Your task to perform on an android device: turn on javascript in the chrome app Image 0: 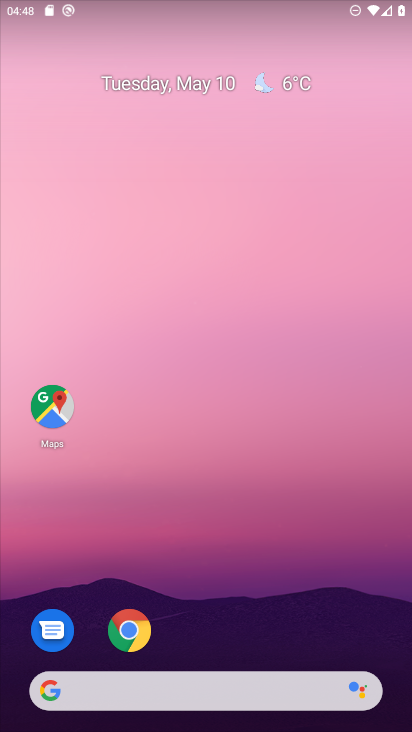
Step 0: click (130, 634)
Your task to perform on an android device: turn on javascript in the chrome app Image 1: 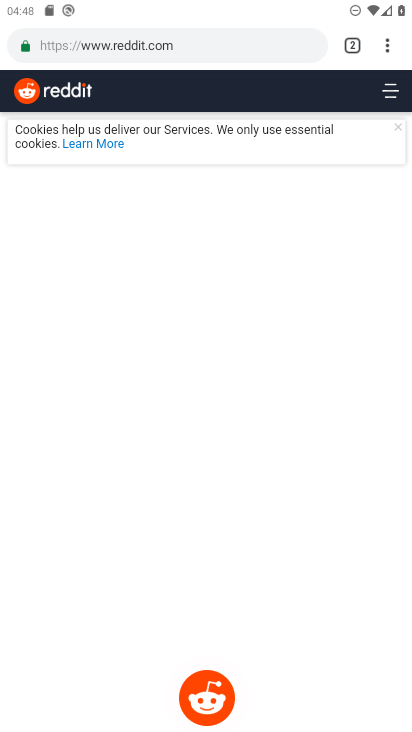
Step 1: click (379, 45)
Your task to perform on an android device: turn on javascript in the chrome app Image 2: 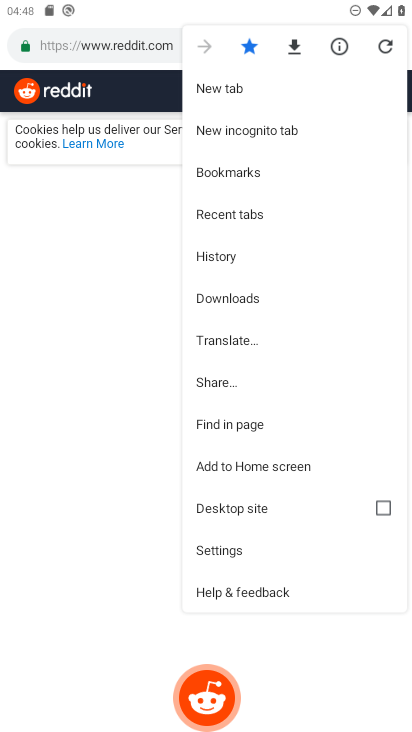
Step 2: click (236, 555)
Your task to perform on an android device: turn on javascript in the chrome app Image 3: 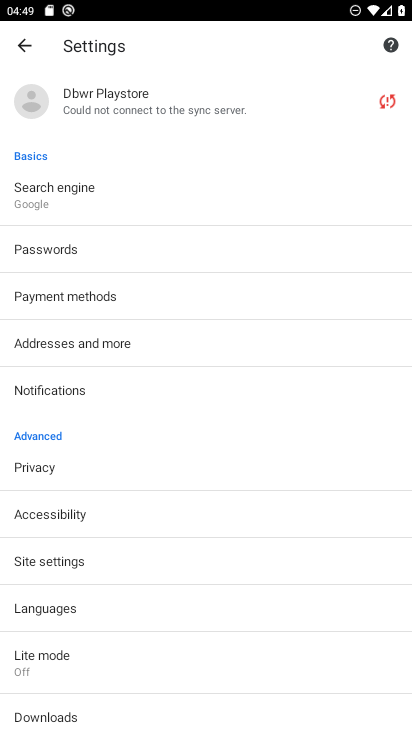
Step 3: click (57, 562)
Your task to perform on an android device: turn on javascript in the chrome app Image 4: 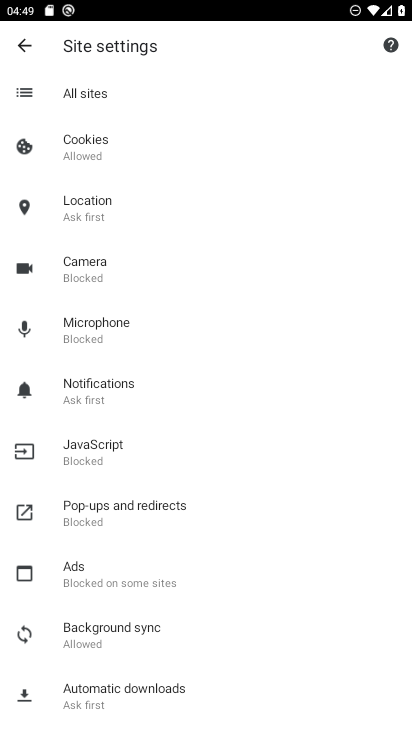
Step 4: click (123, 449)
Your task to perform on an android device: turn on javascript in the chrome app Image 5: 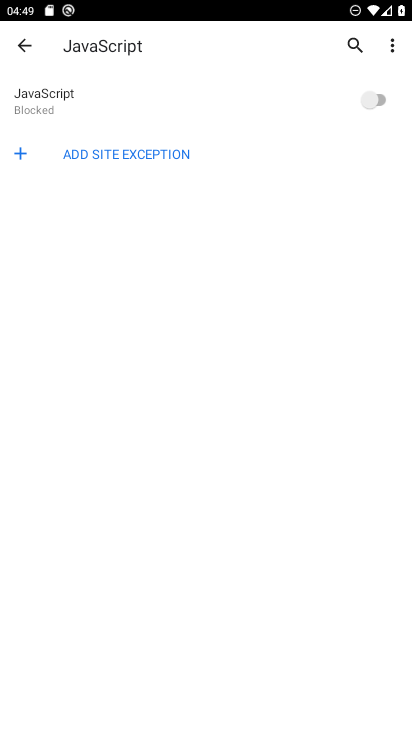
Step 5: click (380, 101)
Your task to perform on an android device: turn on javascript in the chrome app Image 6: 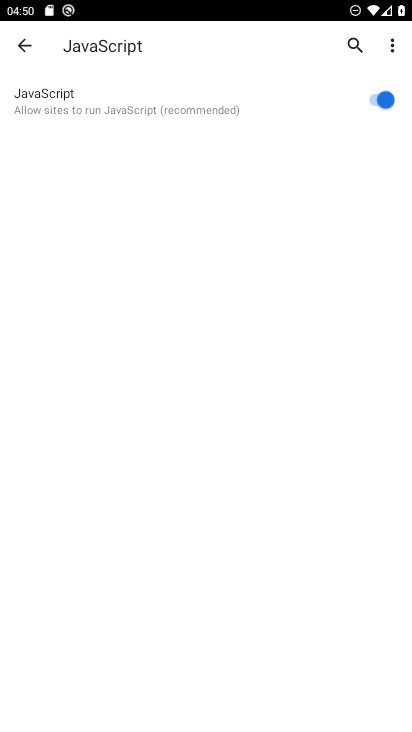
Step 6: task complete